Your task to perform on an android device: find which apps use the phone's location Image 0: 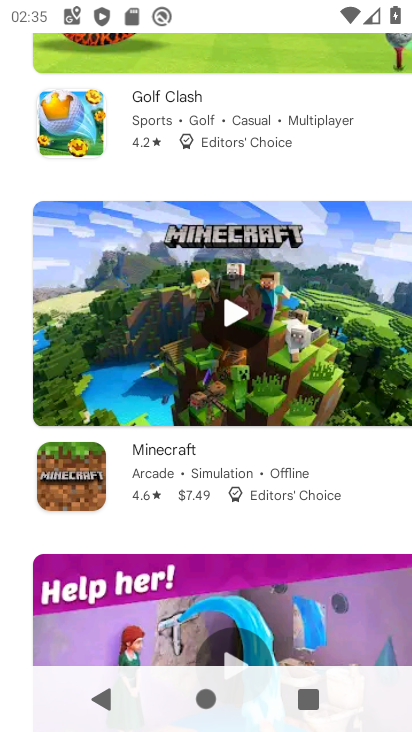
Step 0: drag from (232, 588) to (310, 59)
Your task to perform on an android device: find which apps use the phone's location Image 1: 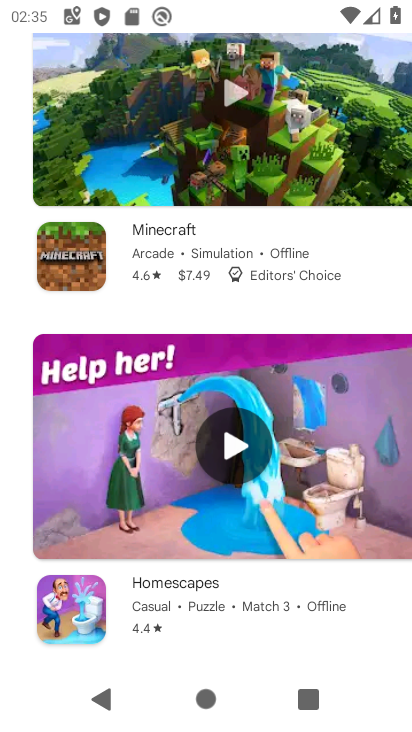
Step 1: press home button
Your task to perform on an android device: find which apps use the phone's location Image 2: 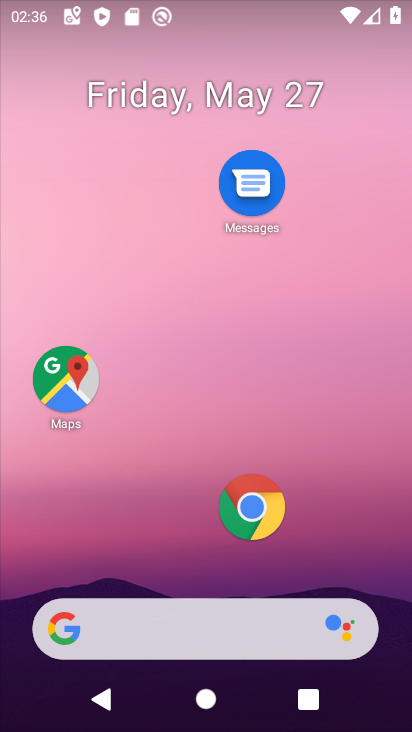
Step 2: drag from (218, 570) to (211, 108)
Your task to perform on an android device: find which apps use the phone's location Image 3: 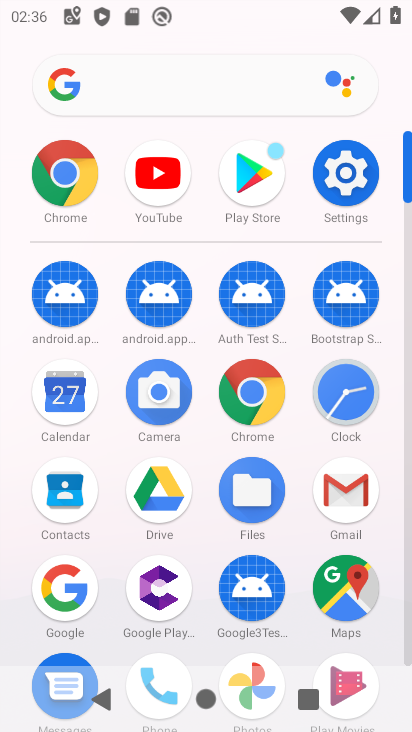
Step 3: click (342, 194)
Your task to perform on an android device: find which apps use the phone's location Image 4: 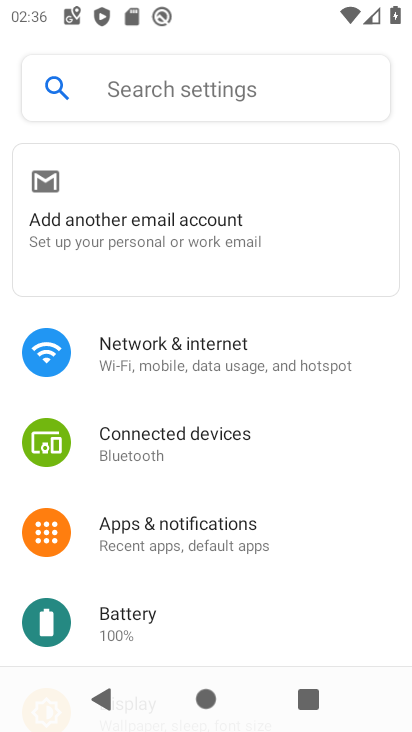
Step 4: drag from (186, 640) to (268, 198)
Your task to perform on an android device: find which apps use the phone's location Image 5: 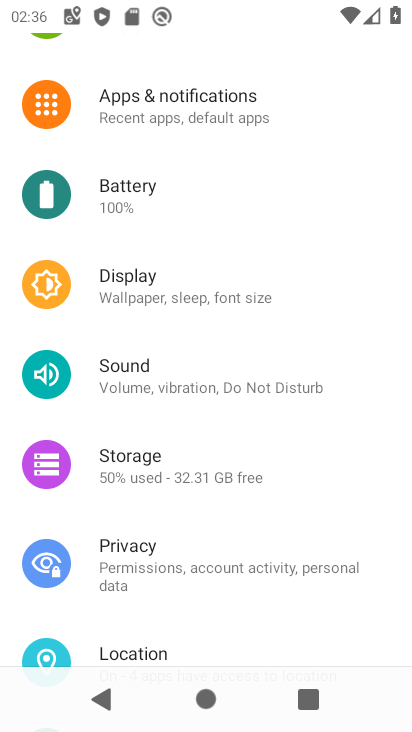
Step 5: click (120, 644)
Your task to perform on an android device: find which apps use the phone's location Image 6: 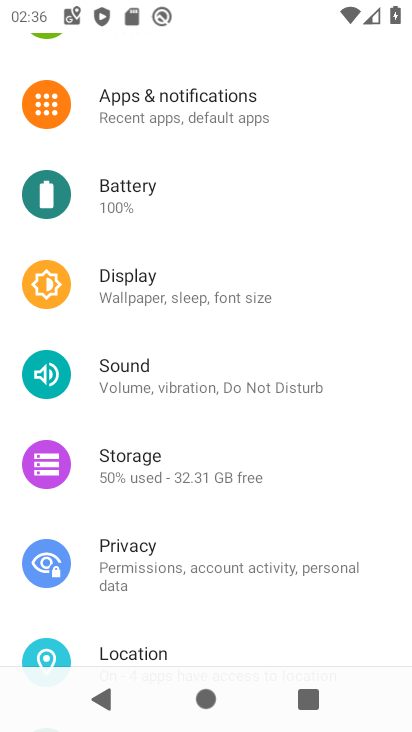
Step 6: click (120, 644)
Your task to perform on an android device: find which apps use the phone's location Image 7: 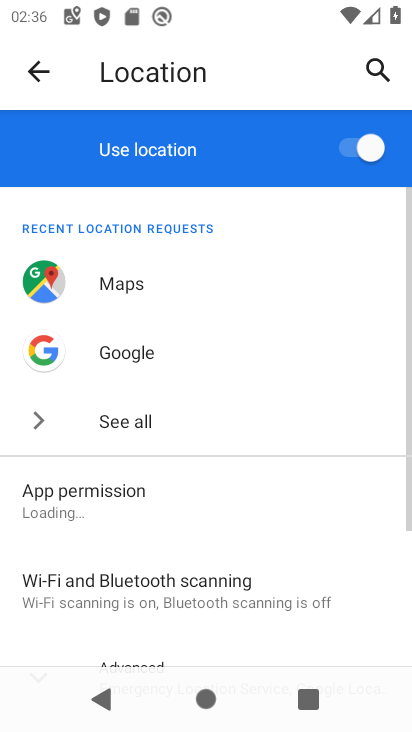
Step 7: drag from (231, 571) to (328, 228)
Your task to perform on an android device: find which apps use the phone's location Image 8: 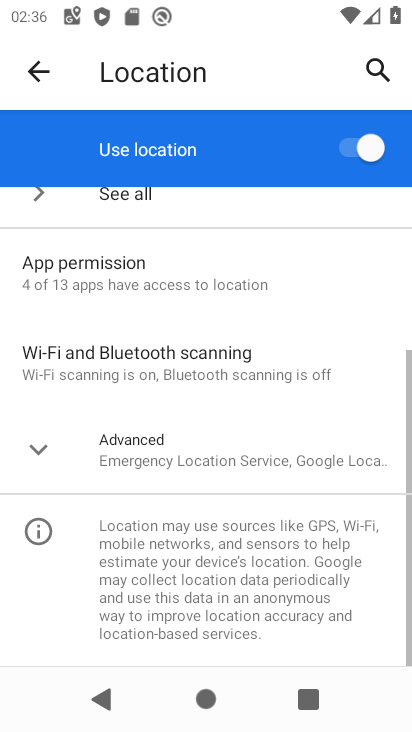
Step 8: click (175, 271)
Your task to perform on an android device: find which apps use the phone's location Image 9: 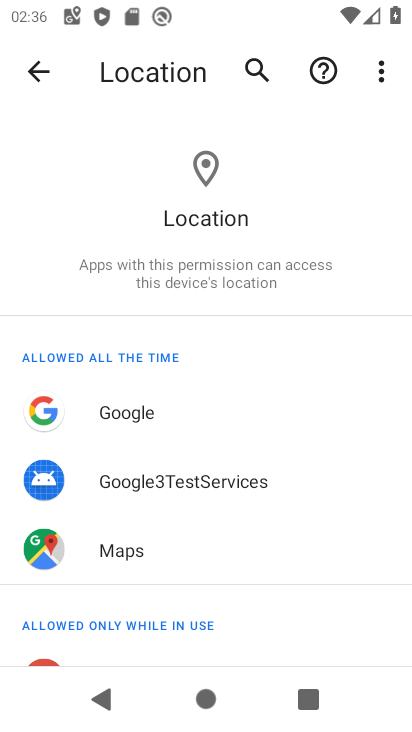
Step 9: task complete